Your task to perform on an android device: turn off data saver in the chrome app Image 0: 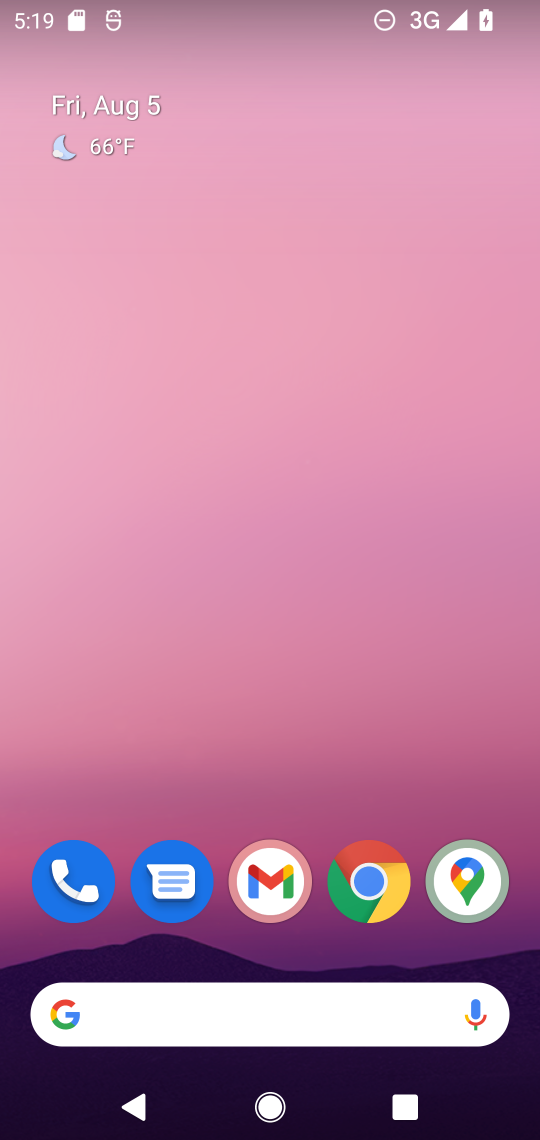
Step 0: drag from (434, 931) to (399, 3)
Your task to perform on an android device: turn off data saver in the chrome app Image 1: 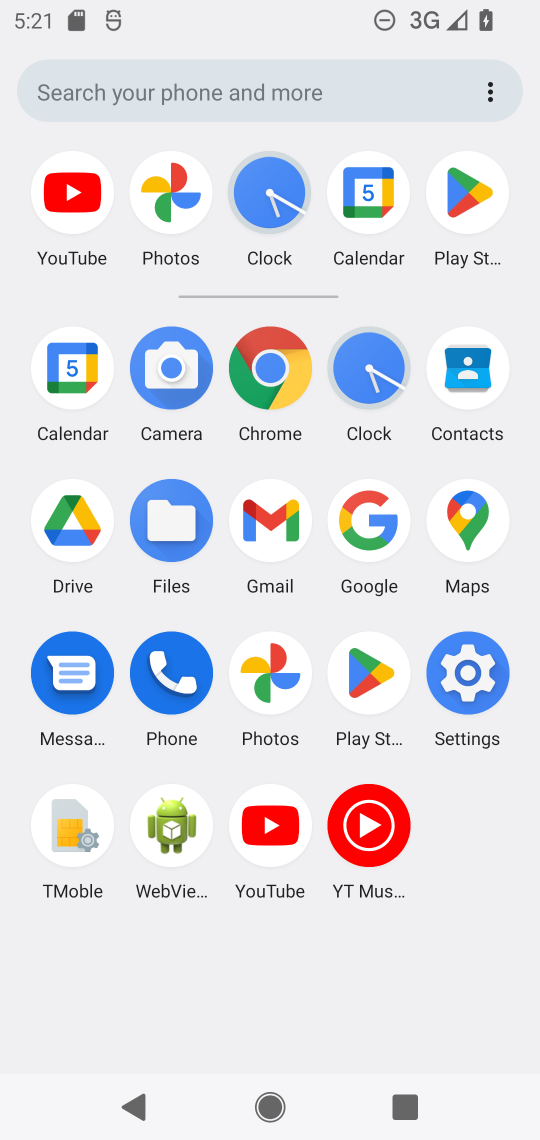
Step 1: click (251, 348)
Your task to perform on an android device: turn off data saver in the chrome app Image 2: 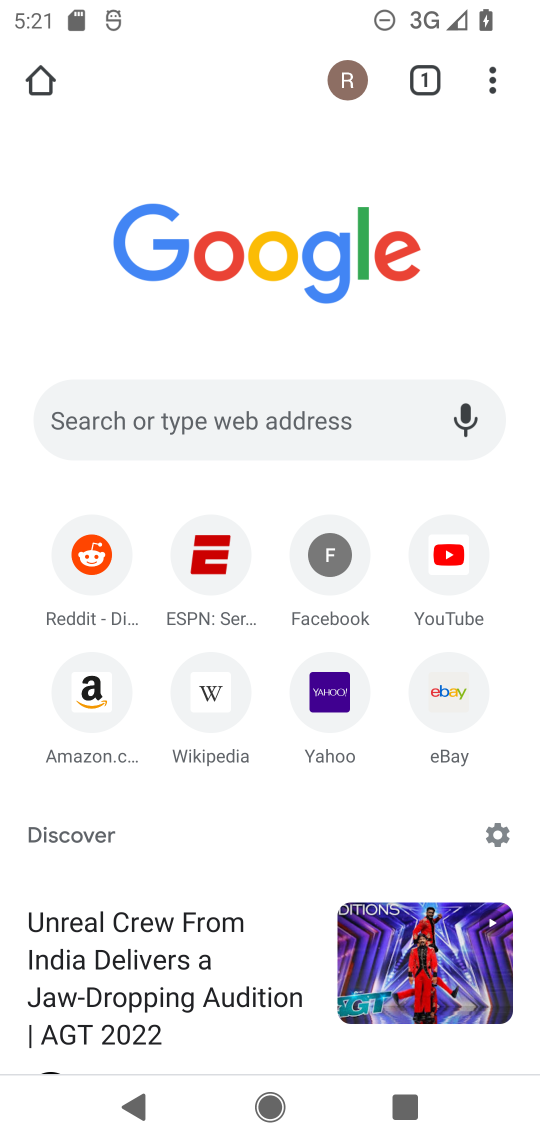
Step 2: click (491, 72)
Your task to perform on an android device: turn off data saver in the chrome app Image 3: 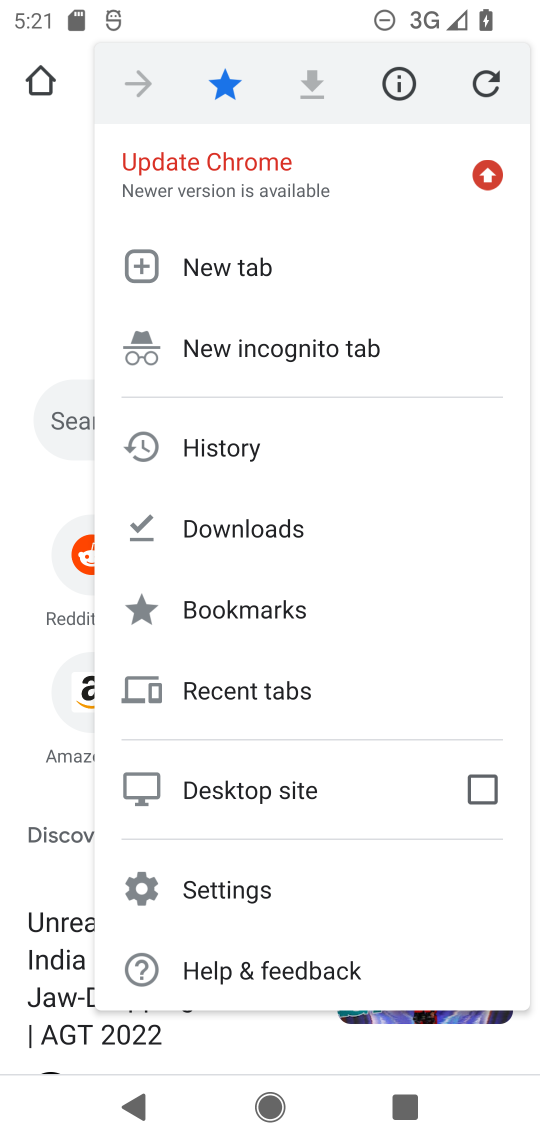
Step 3: click (244, 890)
Your task to perform on an android device: turn off data saver in the chrome app Image 4: 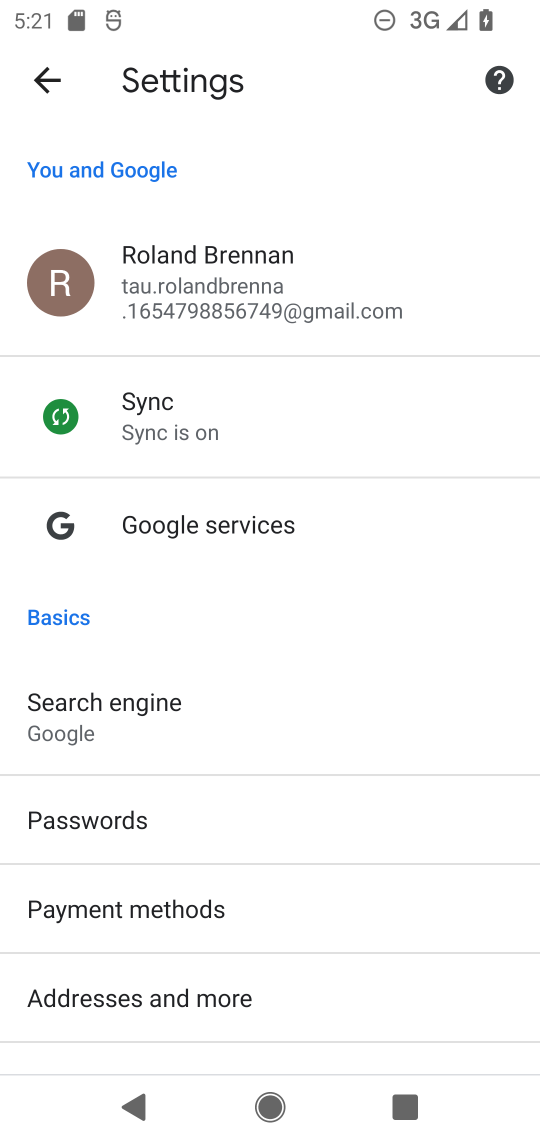
Step 4: drag from (164, 1033) to (202, 252)
Your task to perform on an android device: turn off data saver in the chrome app Image 5: 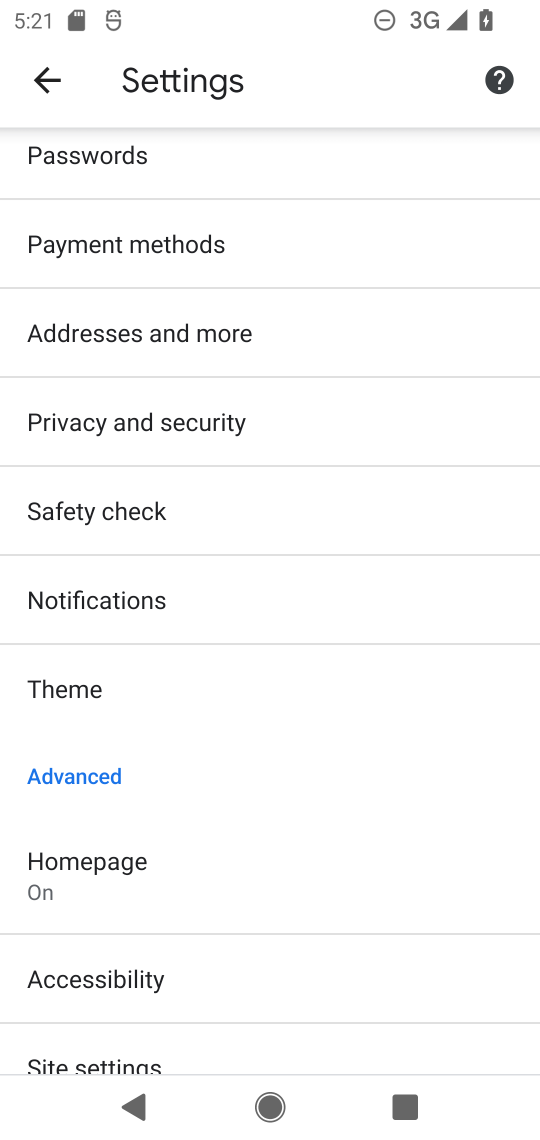
Step 5: drag from (104, 1058) to (248, 153)
Your task to perform on an android device: turn off data saver in the chrome app Image 6: 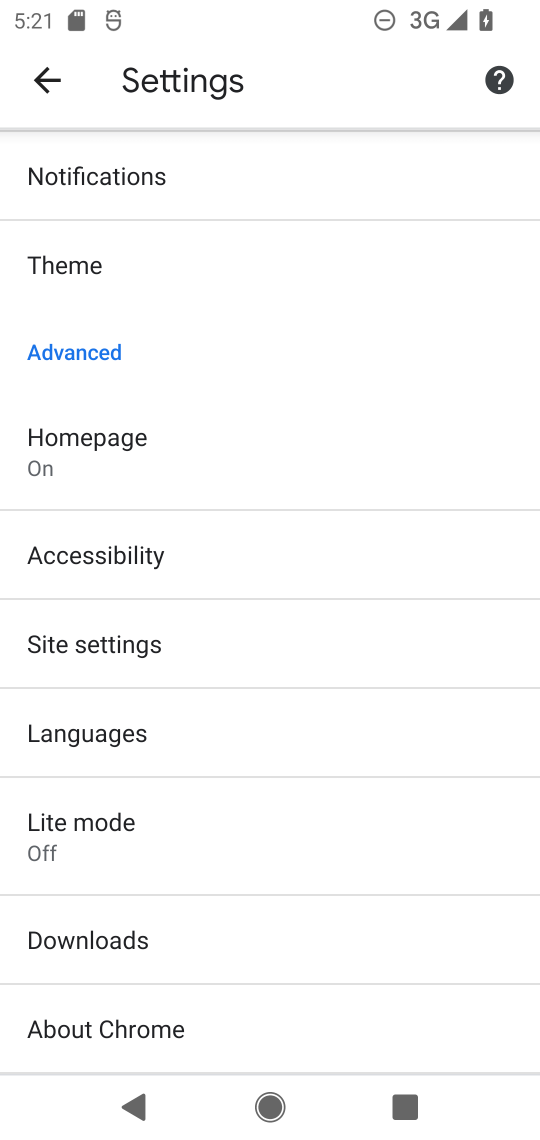
Step 6: click (87, 892)
Your task to perform on an android device: turn off data saver in the chrome app Image 7: 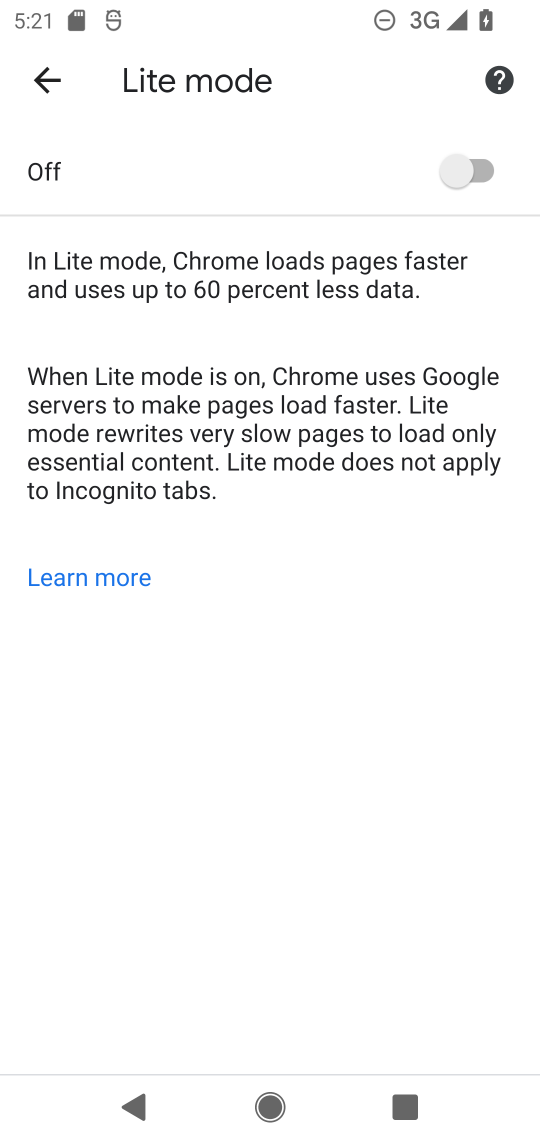
Step 7: task complete